Your task to perform on an android device: Clear all items from cart on amazon.com. Image 0: 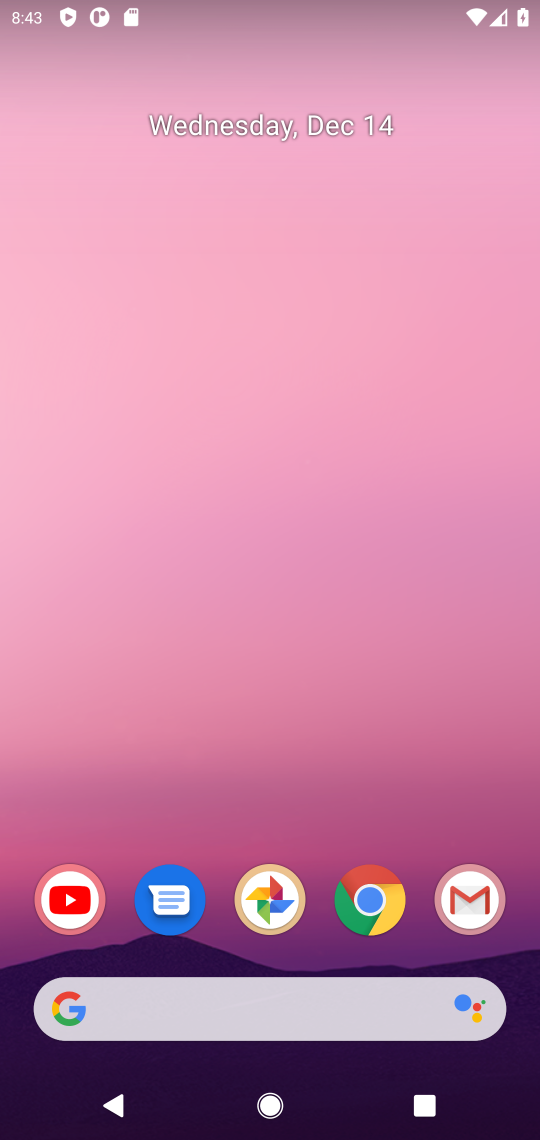
Step 0: click (283, 997)
Your task to perform on an android device: Clear all items from cart on amazon.com. Image 1: 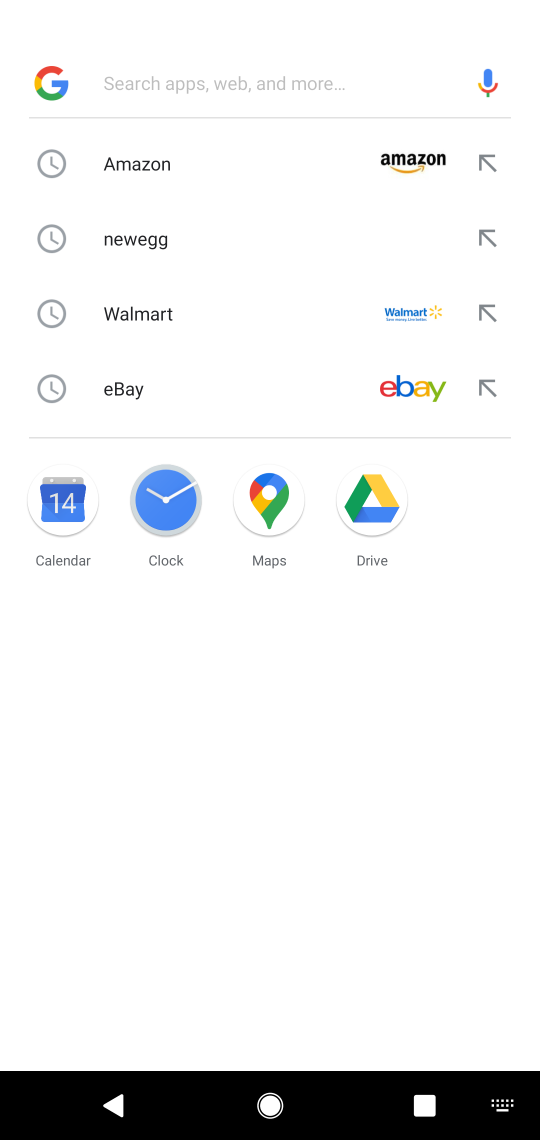
Step 1: click (221, 174)
Your task to perform on an android device: Clear all items from cart on amazon.com. Image 2: 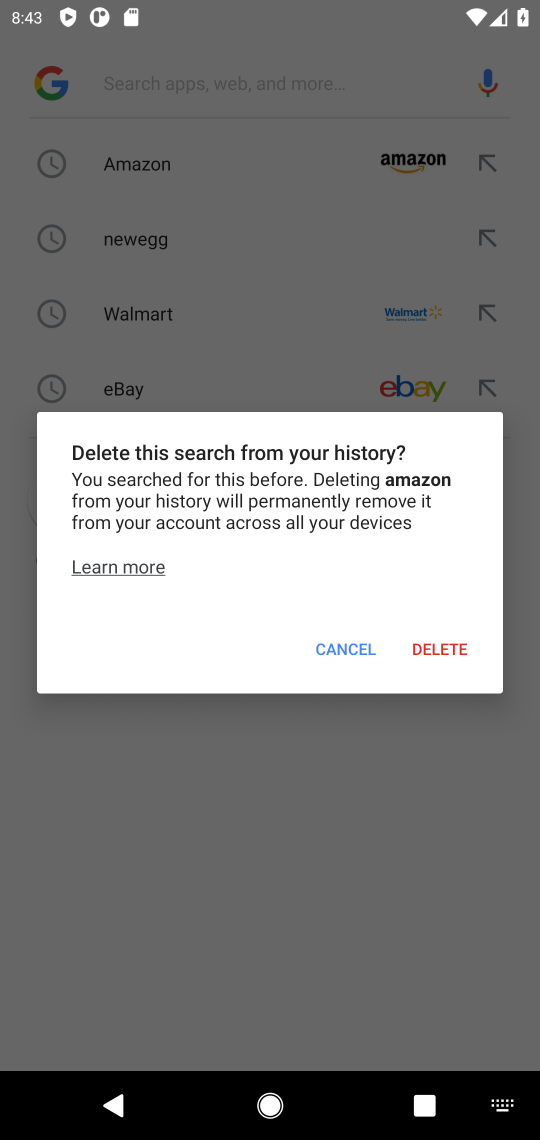
Step 2: click (335, 634)
Your task to perform on an android device: Clear all items from cart on amazon.com. Image 3: 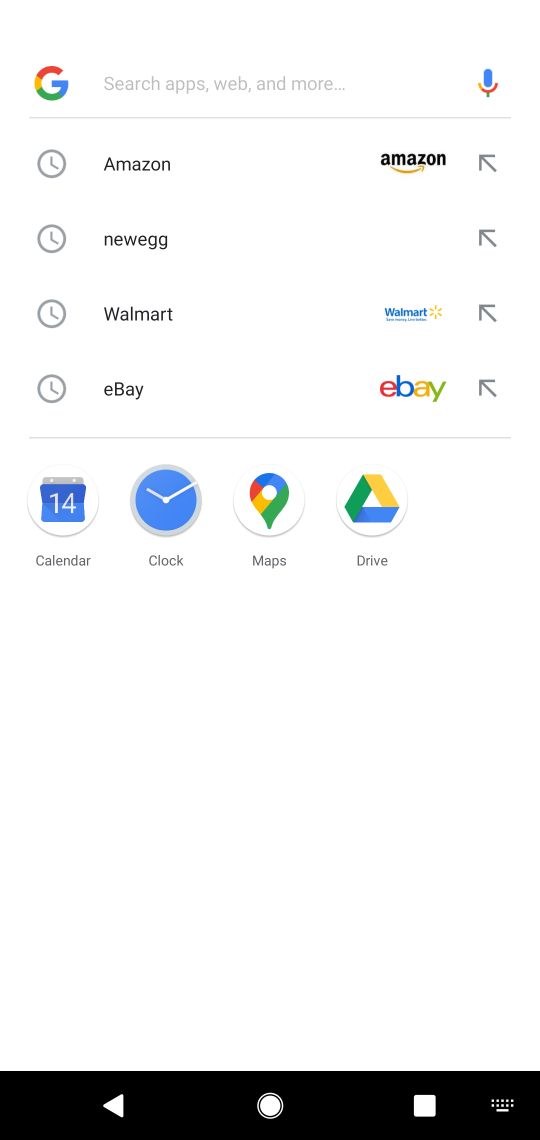
Step 3: click (154, 172)
Your task to perform on an android device: Clear all items from cart on amazon.com. Image 4: 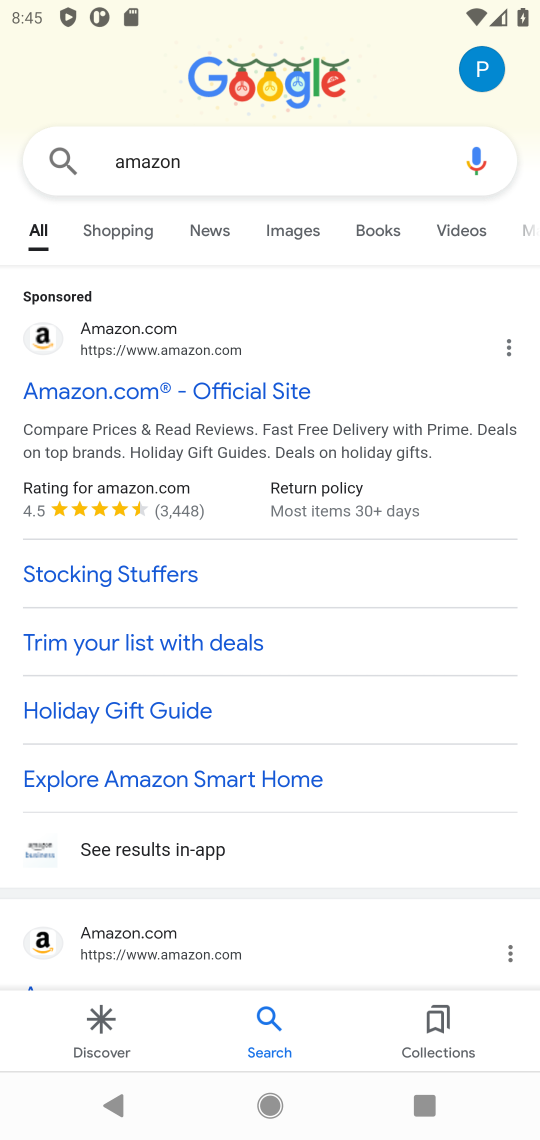
Step 4: click (108, 400)
Your task to perform on an android device: Clear all items from cart on amazon.com. Image 5: 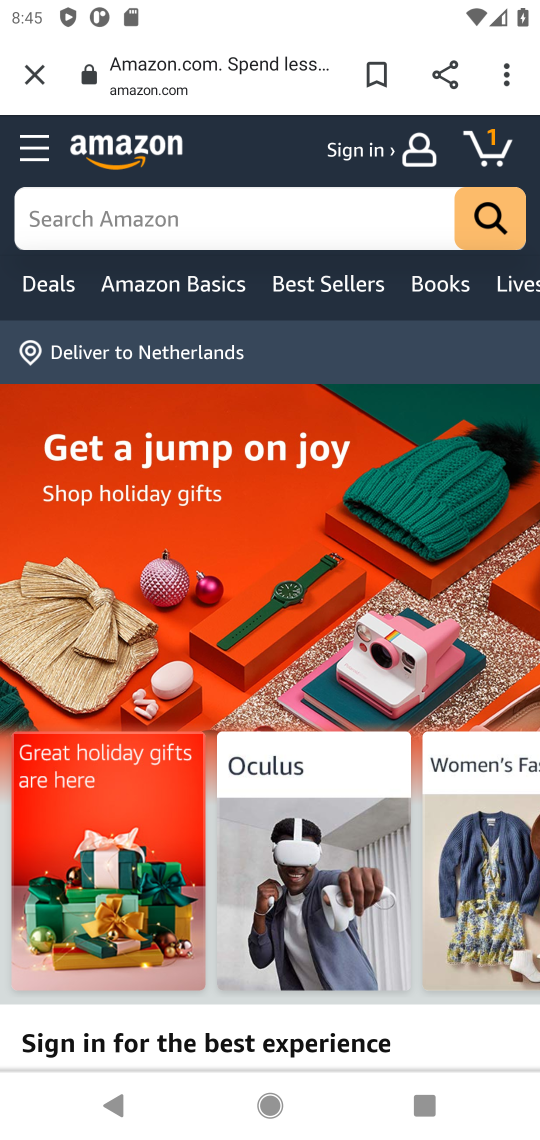
Step 5: click (495, 128)
Your task to perform on an android device: Clear all items from cart on amazon.com. Image 6: 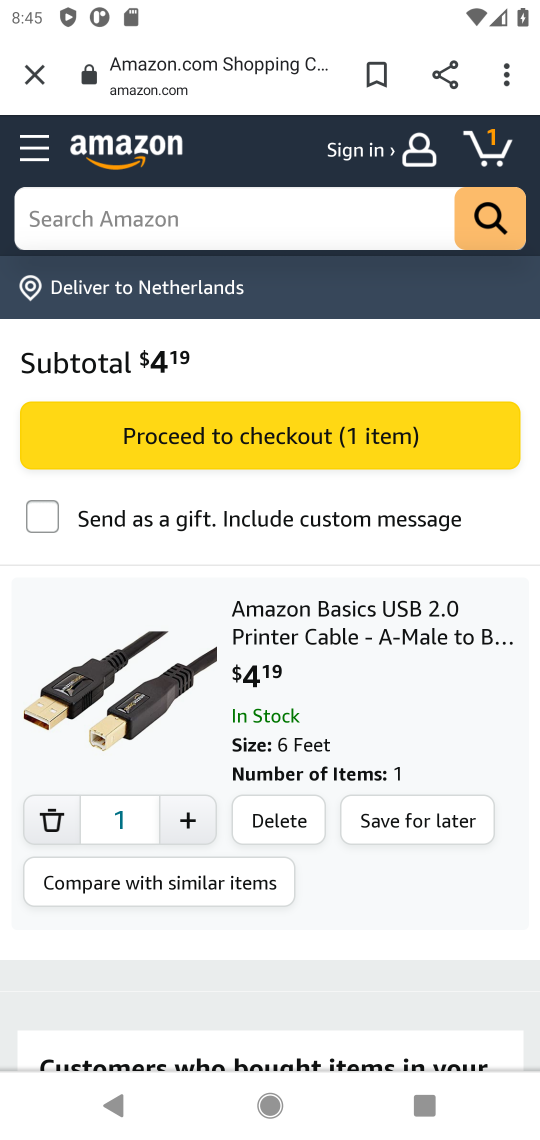
Step 6: click (274, 825)
Your task to perform on an android device: Clear all items from cart on amazon.com. Image 7: 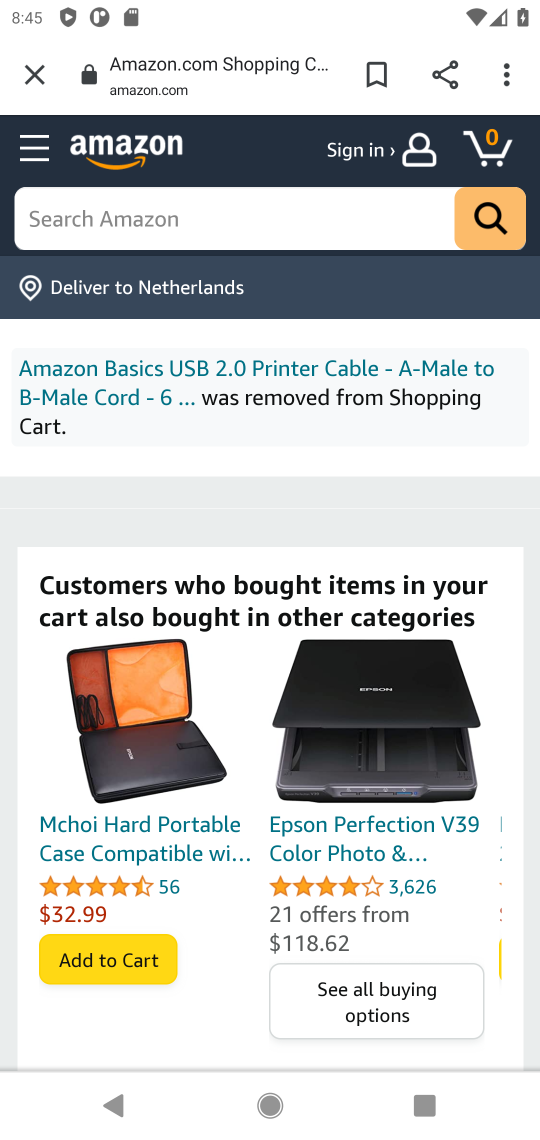
Step 7: task complete